Your task to perform on an android device: change notifications settings Image 0: 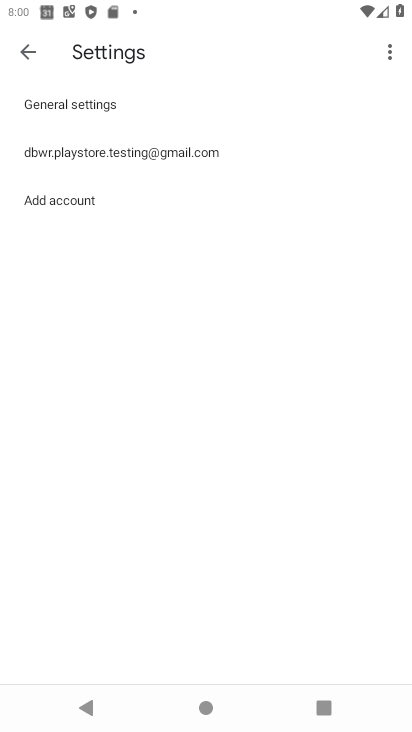
Step 0: press back button
Your task to perform on an android device: change notifications settings Image 1: 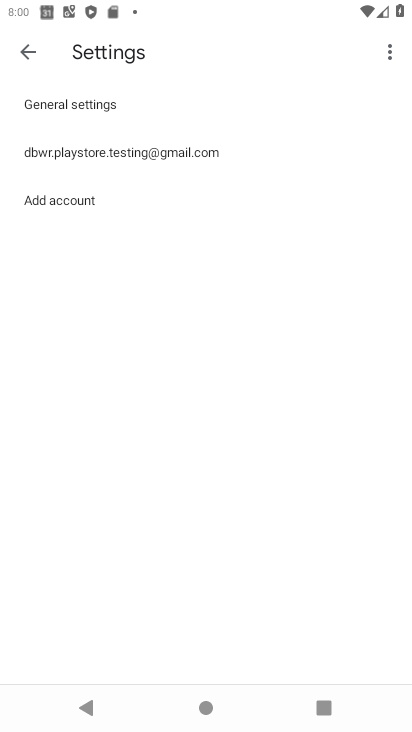
Step 1: press back button
Your task to perform on an android device: change notifications settings Image 2: 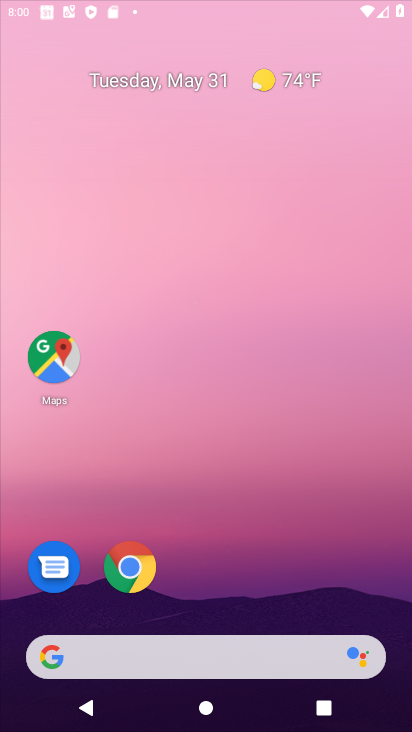
Step 2: press back button
Your task to perform on an android device: change notifications settings Image 3: 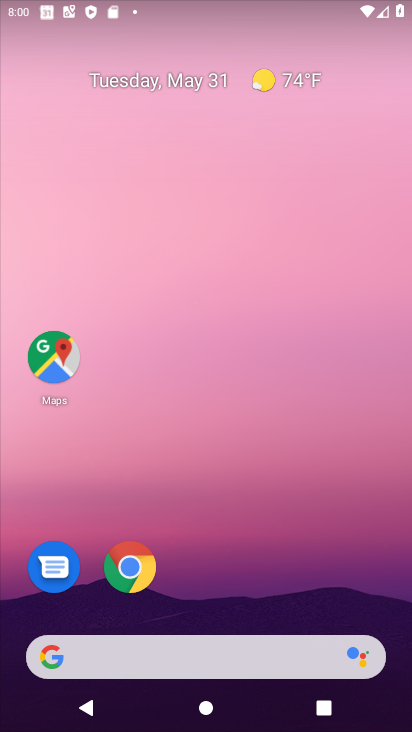
Step 3: drag from (261, 652) to (247, 159)
Your task to perform on an android device: change notifications settings Image 4: 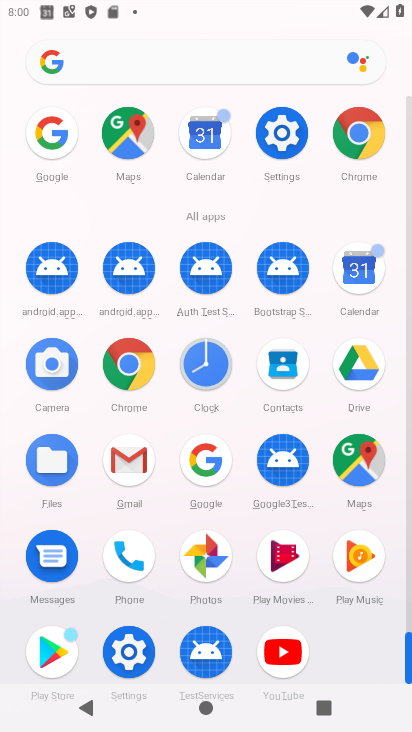
Step 4: click (288, 141)
Your task to perform on an android device: change notifications settings Image 5: 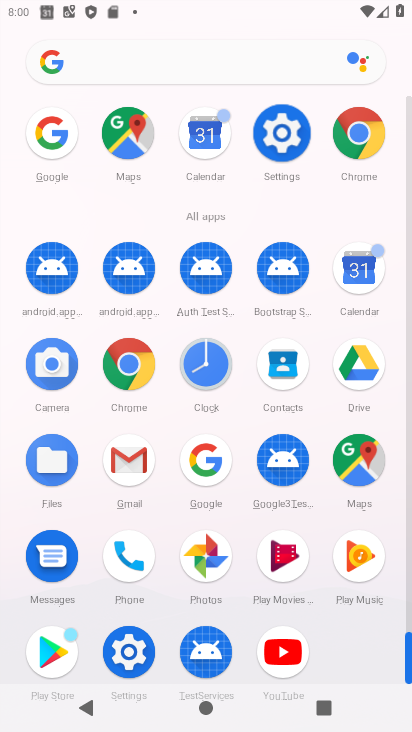
Step 5: click (288, 140)
Your task to perform on an android device: change notifications settings Image 6: 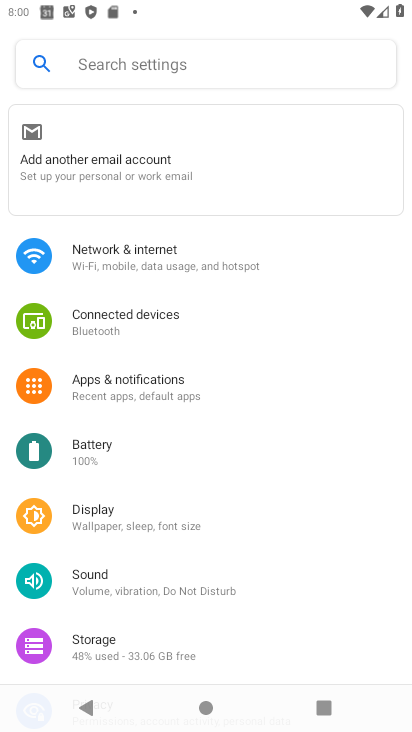
Step 6: click (120, 383)
Your task to perform on an android device: change notifications settings Image 7: 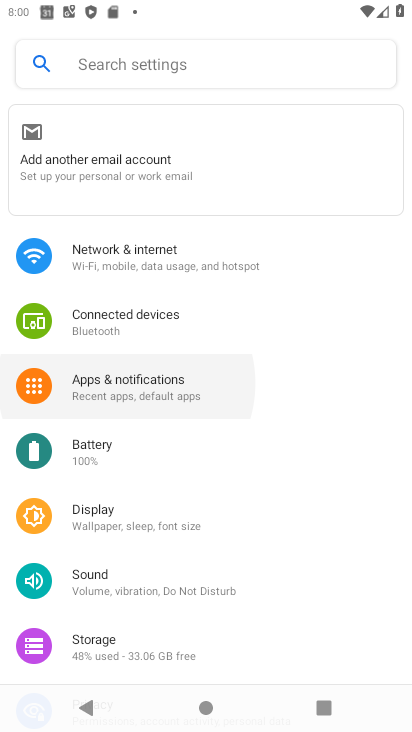
Step 7: click (120, 383)
Your task to perform on an android device: change notifications settings Image 8: 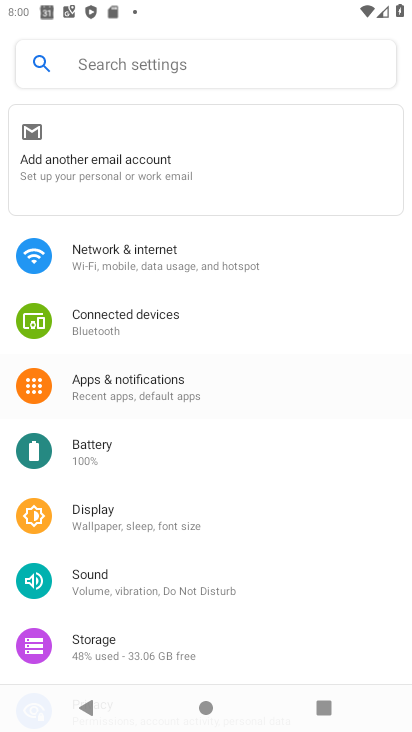
Step 8: click (120, 383)
Your task to perform on an android device: change notifications settings Image 9: 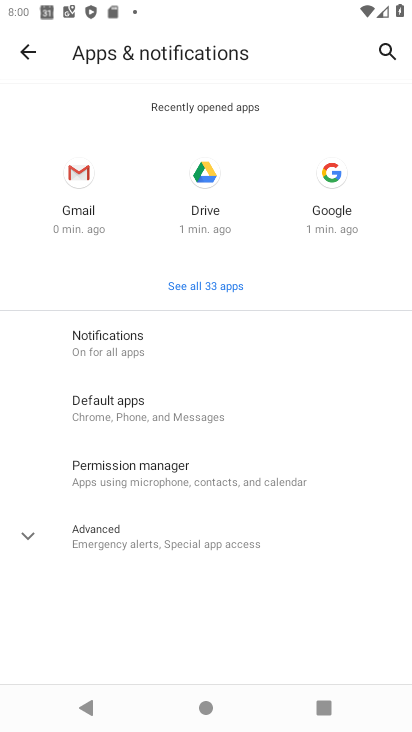
Step 9: click (122, 355)
Your task to perform on an android device: change notifications settings Image 10: 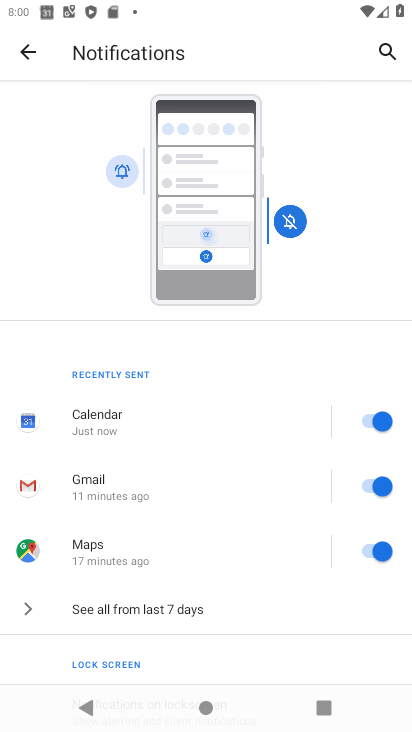
Step 10: drag from (176, 533) to (244, 180)
Your task to perform on an android device: change notifications settings Image 11: 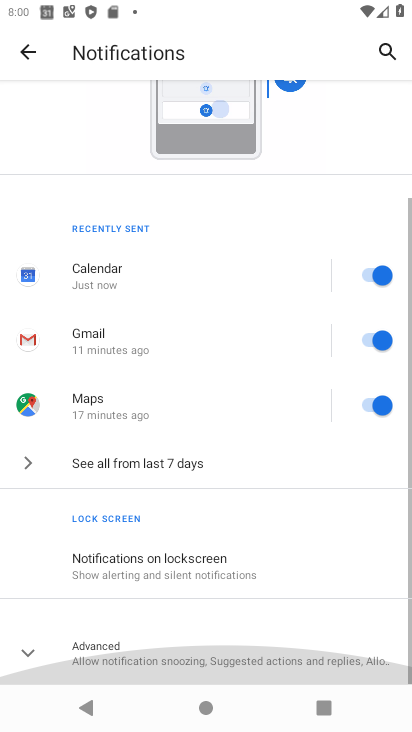
Step 11: drag from (335, 461) to (281, 148)
Your task to perform on an android device: change notifications settings Image 12: 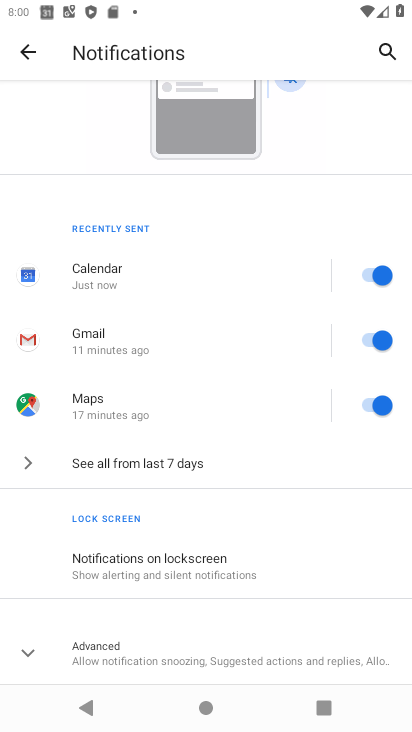
Step 12: click (375, 270)
Your task to perform on an android device: change notifications settings Image 13: 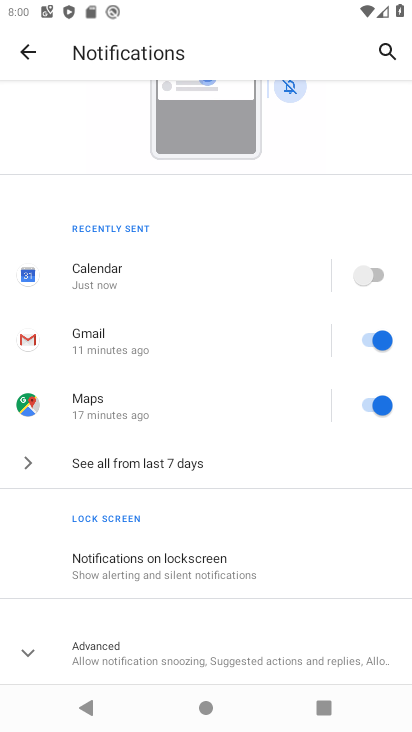
Step 13: click (387, 335)
Your task to perform on an android device: change notifications settings Image 14: 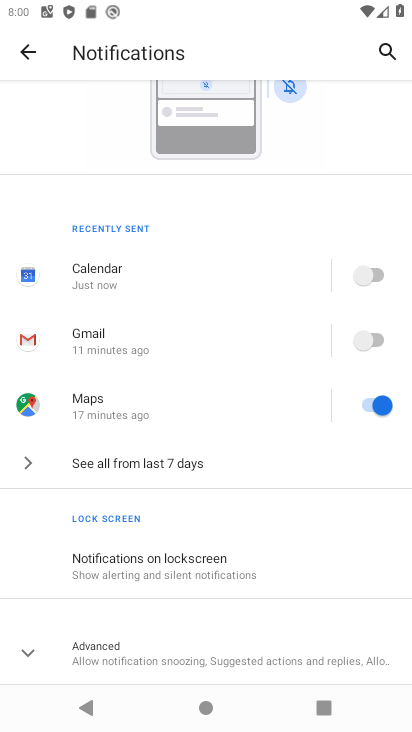
Step 14: click (380, 406)
Your task to perform on an android device: change notifications settings Image 15: 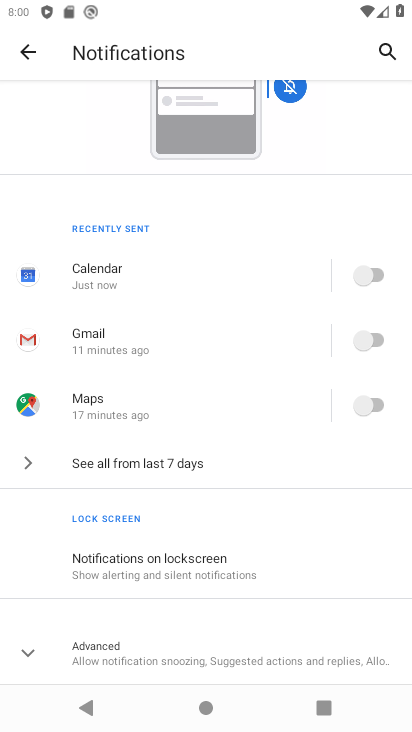
Step 15: task complete